Your task to perform on an android device: turn on the 24-hour format for clock Image 0: 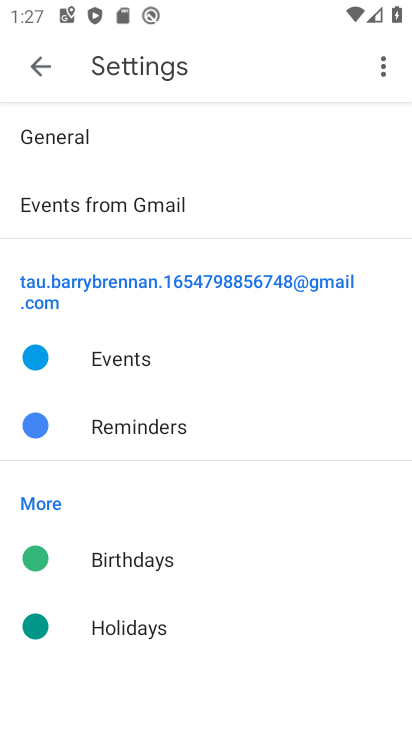
Step 0: press home button
Your task to perform on an android device: turn on the 24-hour format for clock Image 1: 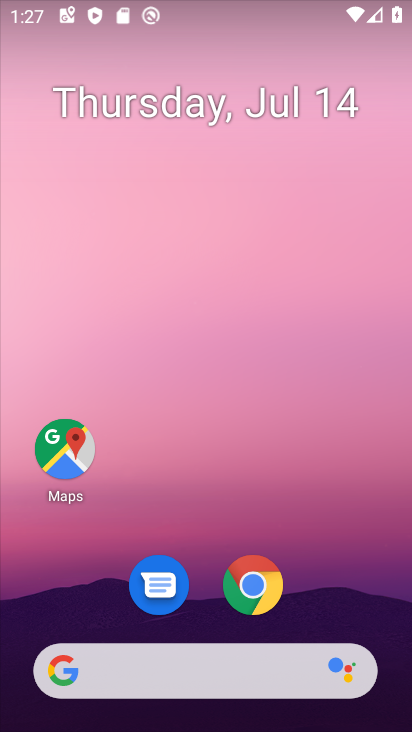
Step 1: drag from (320, 564) to (287, 65)
Your task to perform on an android device: turn on the 24-hour format for clock Image 2: 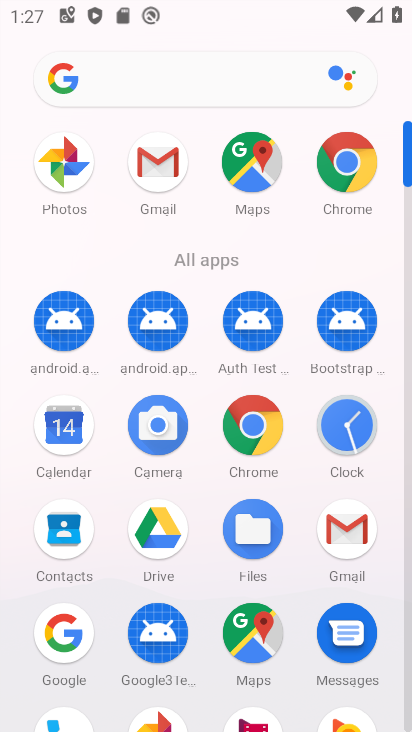
Step 2: drag from (308, 541) to (303, 156)
Your task to perform on an android device: turn on the 24-hour format for clock Image 3: 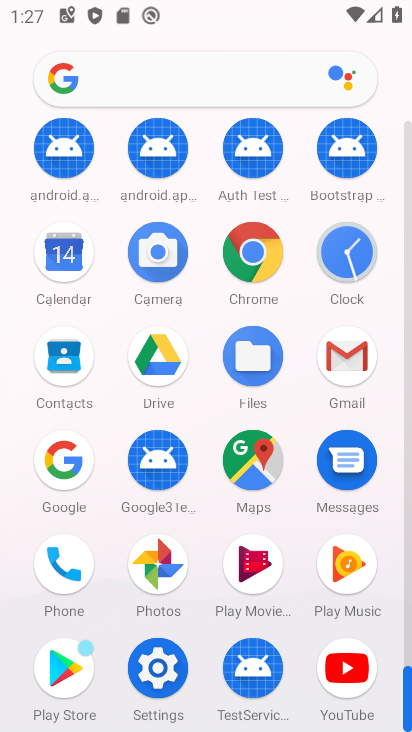
Step 3: click (335, 245)
Your task to perform on an android device: turn on the 24-hour format for clock Image 4: 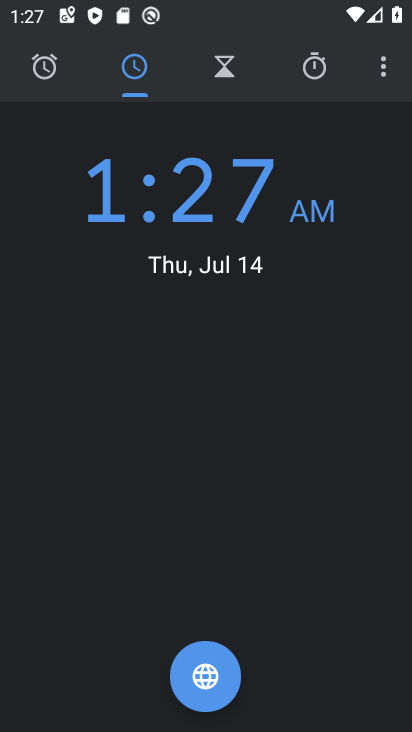
Step 4: click (383, 68)
Your task to perform on an android device: turn on the 24-hour format for clock Image 5: 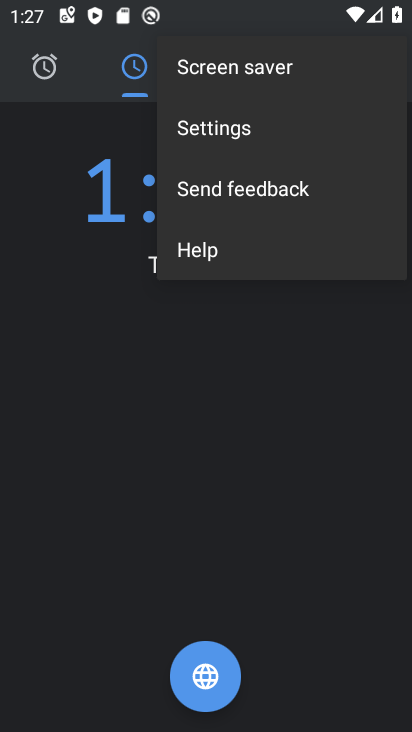
Step 5: click (291, 128)
Your task to perform on an android device: turn on the 24-hour format for clock Image 6: 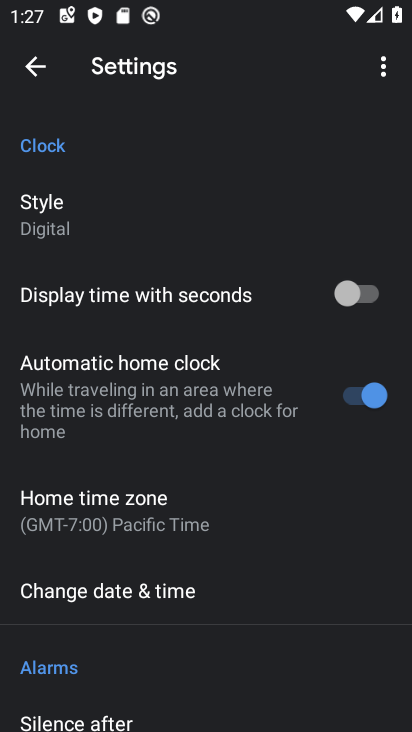
Step 6: click (260, 596)
Your task to perform on an android device: turn on the 24-hour format for clock Image 7: 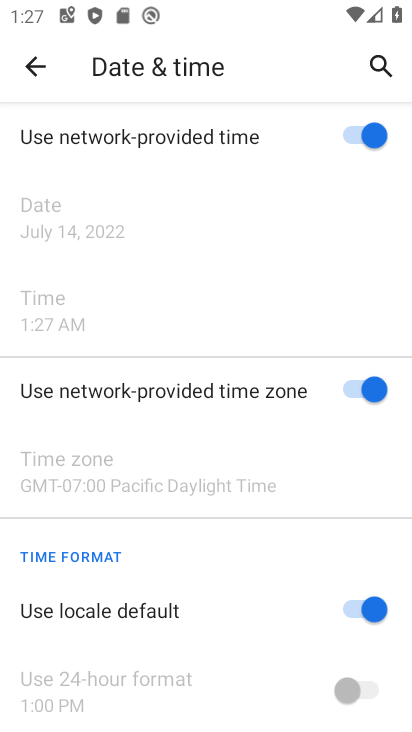
Step 7: click (354, 607)
Your task to perform on an android device: turn on the 24-hour format for clock Image 8: 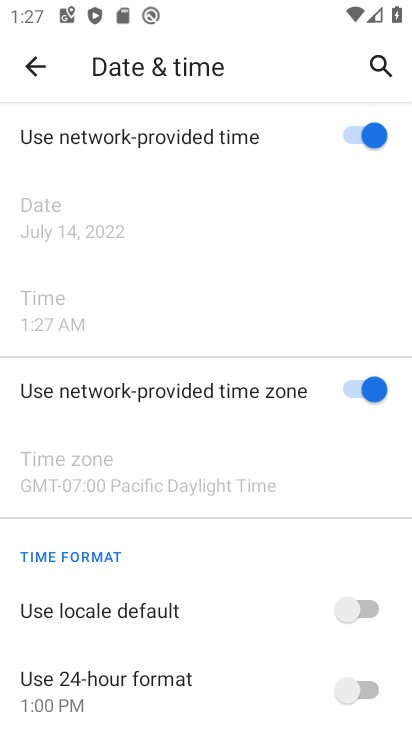
Step 8: click (354, 685)
Your task to perform on an android device: turn on the 24-hour format for clock Image 9: 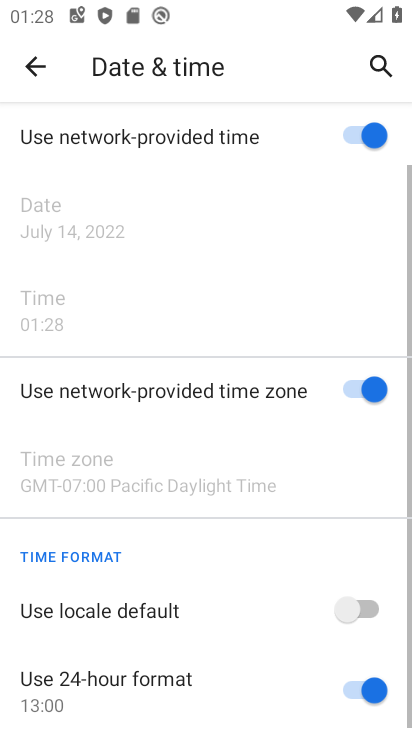
Step 9: task complete